Your task to perform on an android device: What's the weather going to be tomorrow? Image 0: 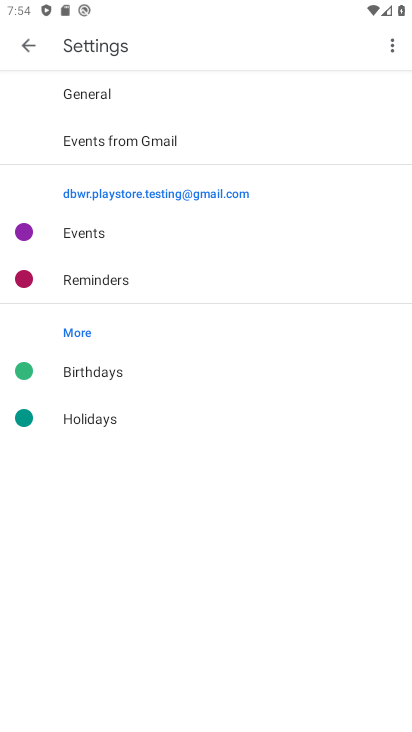
Step 0: drag from (346, 653) to (333, 494)
Your task to perform on an android device: What's the weather going to be tomorrow? Image 1: 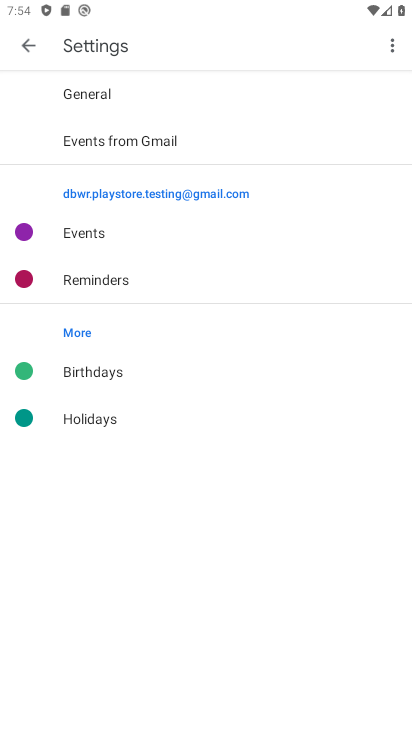
Step 1: press home button
Your task to perform on an android device: What's the weather going to be tomorrow? Image 2: 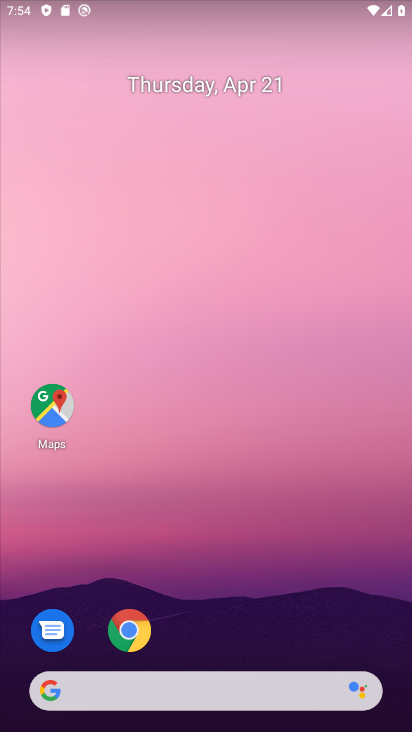
Step 2: click (130, 626)
Your task to perform on an android device: What's the weather going to be tomorrow? Image 3: 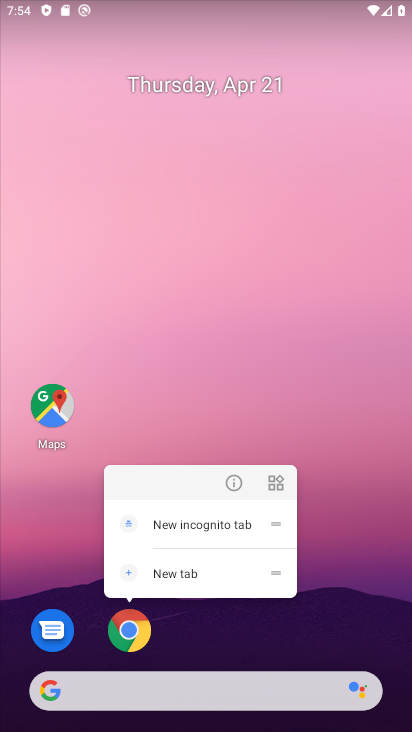
Step 3: click (138, 618)
Your task to perform on an android device: What's the weather going to be tomorrow? Image 4: 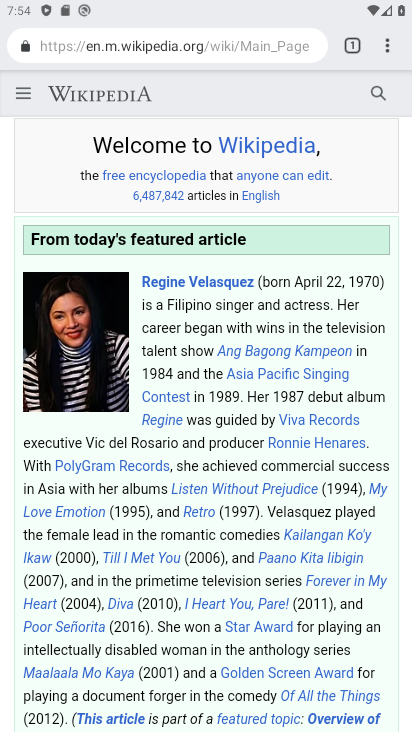
Step 4: click (224, 40)
Your task to perform on an android device: What's the weather going to be tomorrow? Image 5: 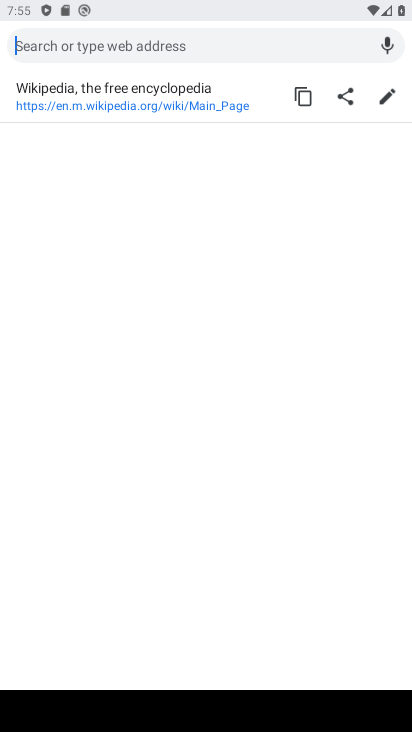
Step 5: type "weather tomorrow"
Your task to perform on an android device: What's the weather going to be tomorrow? Image 6: 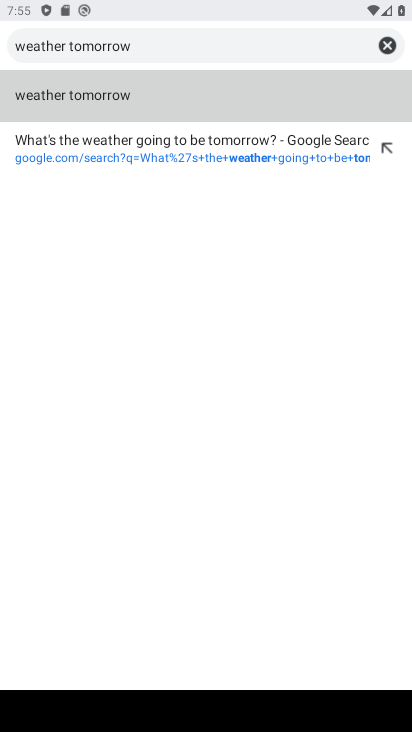
Step 6: click (271, 77)
Your task to perform on an android device: What's the weather going to be tomorrow? Image 7: 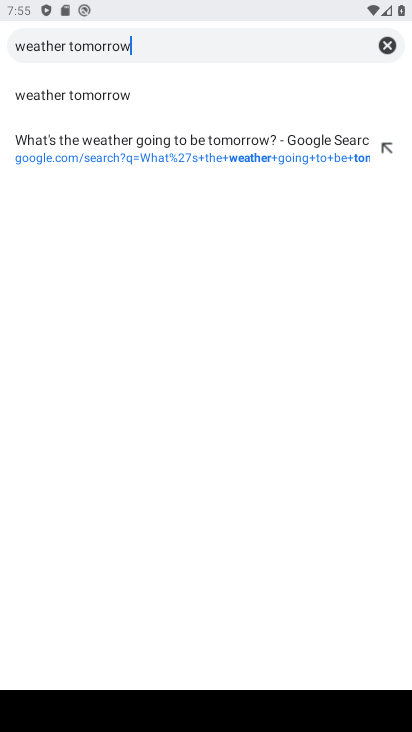
Step 7: click (108, 101)
Your task to perform on an android device: What's the weather going to be tomorrow? Image 8: 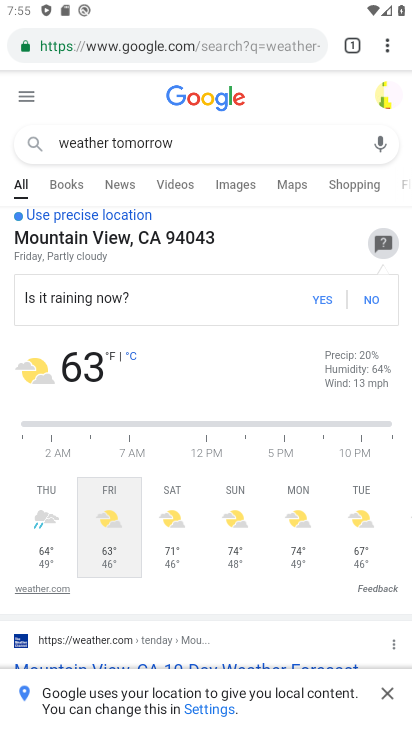
Step 8: task complete